Your task to perform on an android device: Open Android settings Image 0: 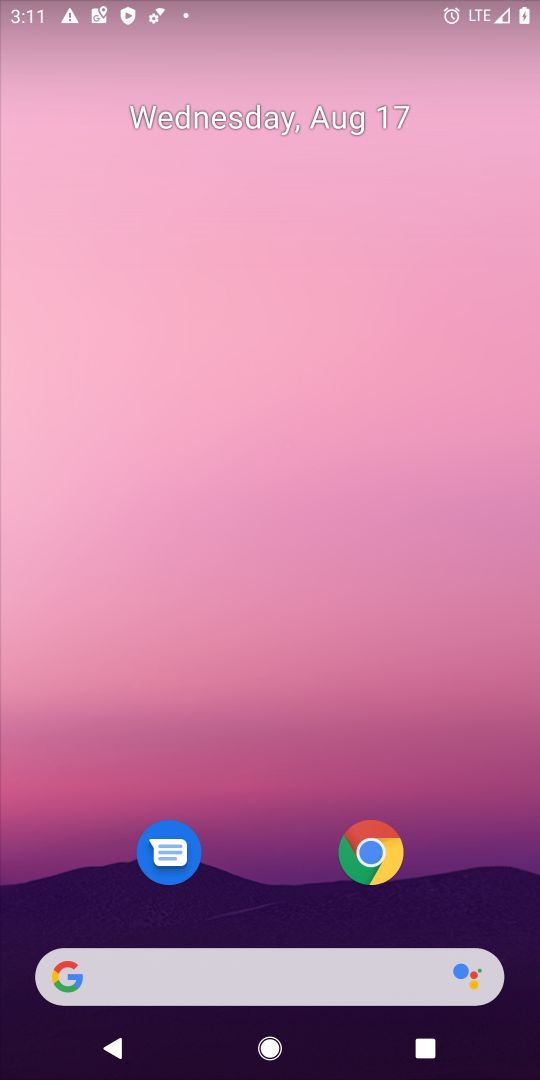
Step 0: drag from (245, 857) to (331, 75)
Your task to perform on an android device: Open Android settings Image 1: 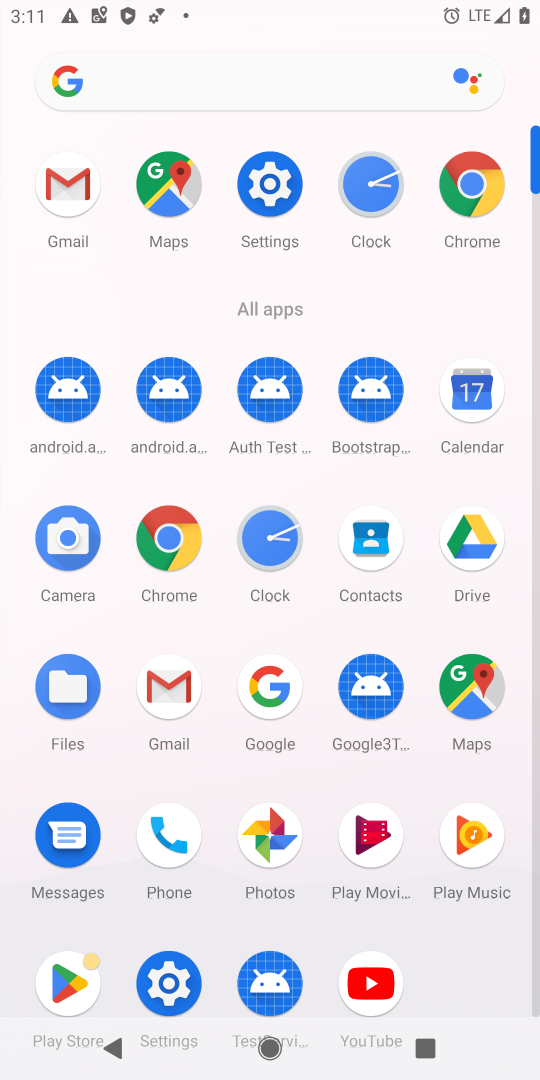
Step 1: click (175, 987)
Your task to perform on an android device: Open Android settings Image 2: 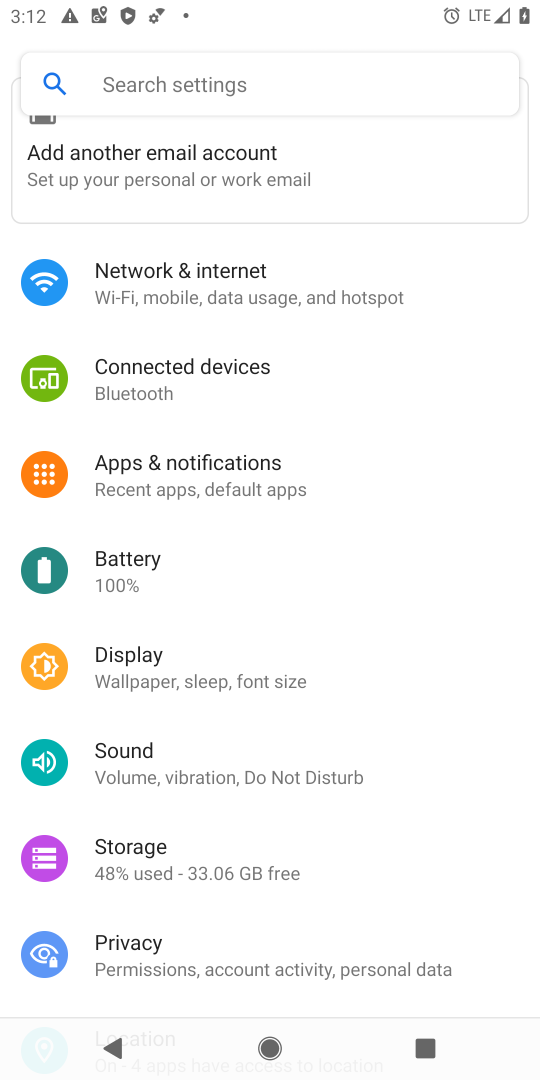
Step 2: task complete